Your task to perform on an android device: delete location history Image 0: 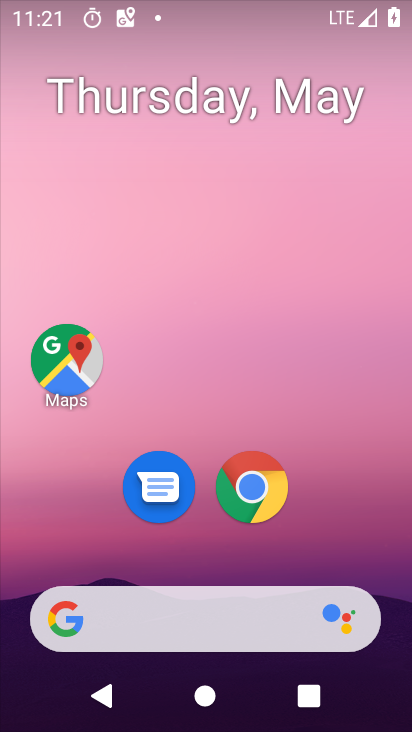
Step 0: drag from (243, 553) to (284, 24)
Your task to perform on an android device: delete location history Image 1: 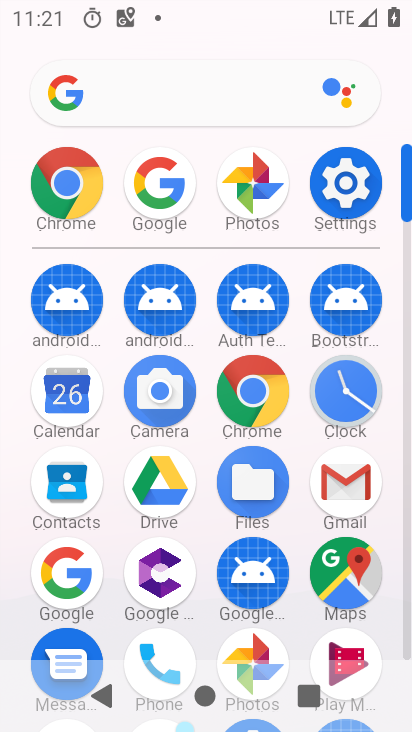
Step 1: click (351, 202)
Your task to perform on an android device: delete location history Image 2: 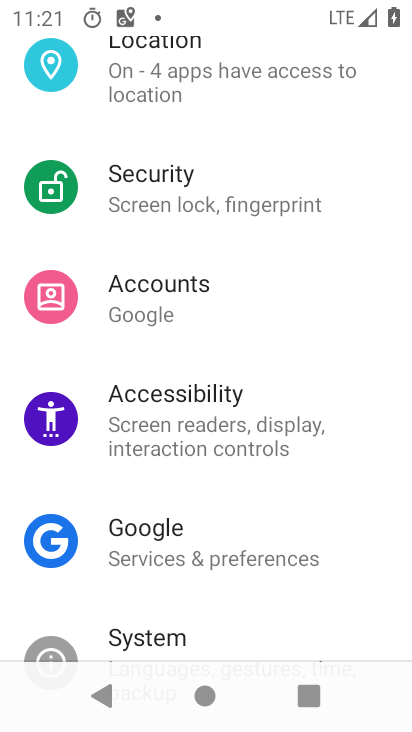
Step 2: drag from (173, 519) to (225, 160)
Your task to perform on an android device: delete location history Image 3: 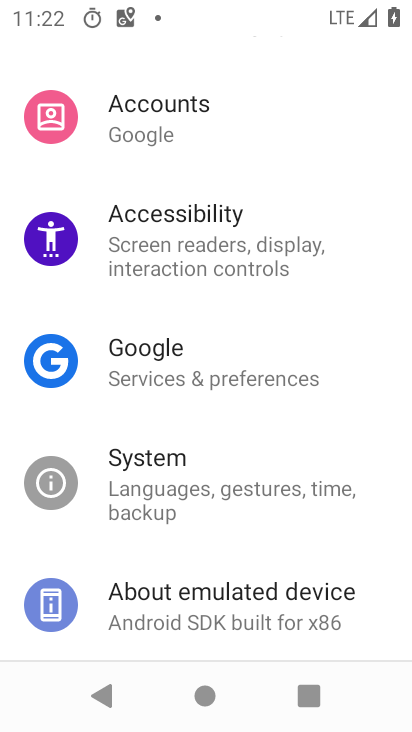
Step 3: drag from (251, 430) to (240, 636)
Your task to perform on an android device: delete location history Image 4: 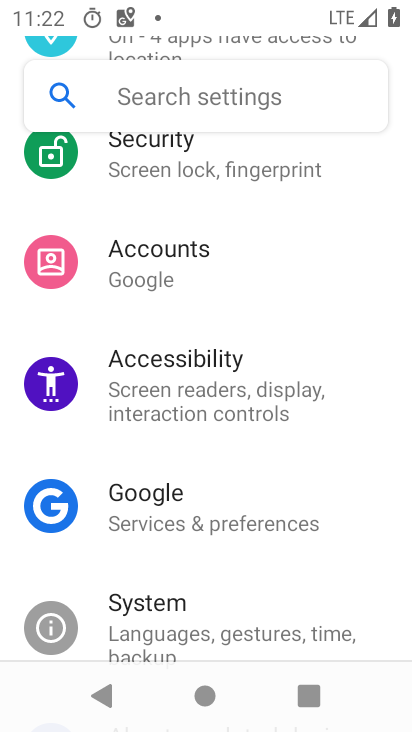
Step 4: drag from (239, 280) to (246, 505)
Your task to perform on an android device: delete location history Image 5: 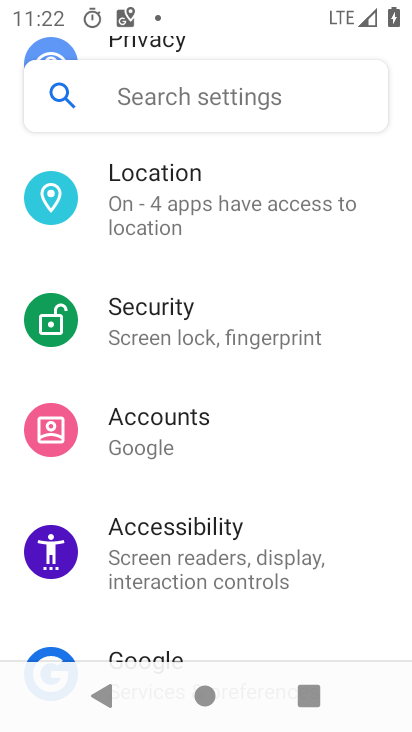
Step 5: click (225, 225)
Your task to perform on an android device: delete location history Image 6: 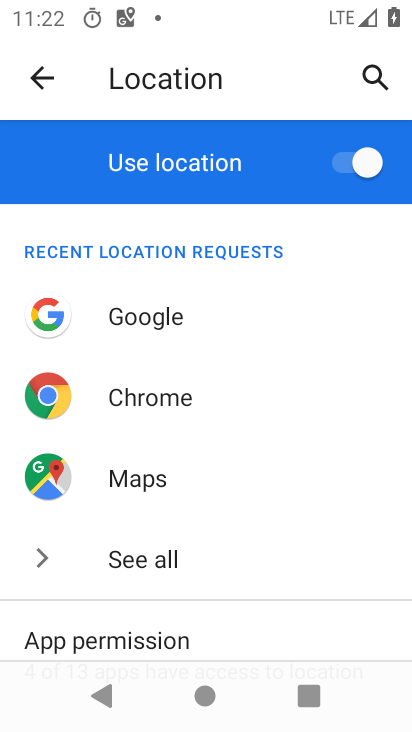
Step 6: drag from (198, 545) to (224, 210)
Your task to perform on an android device: delete location history Image 7: 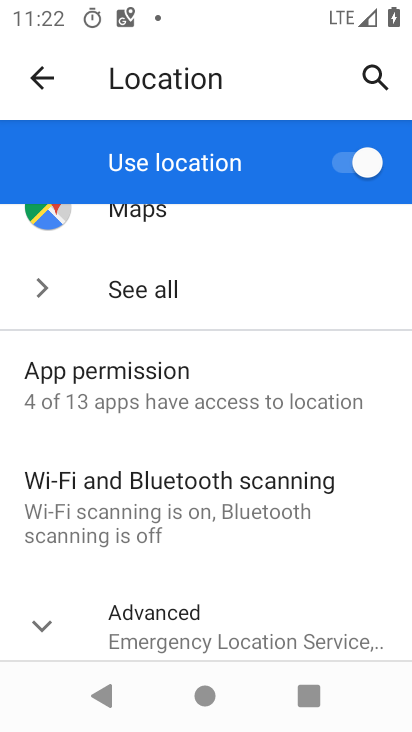
Step 7: click (192, 598)
Your task to perform on an android device: delete location history Image 8: 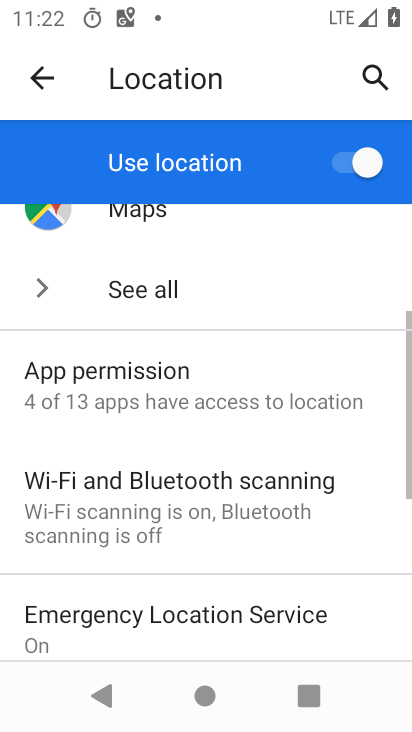
Step 8: drag from (204, 488) to (238, 209)
Your task to perform on an android device: delete location history Image 9: 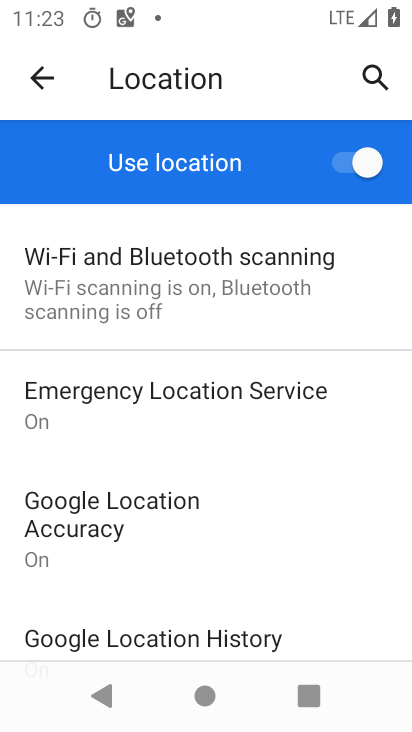
Step 9: drag from (233, 574) to (281, 218)
Your task to perform on an android device: delete location history Image 10: 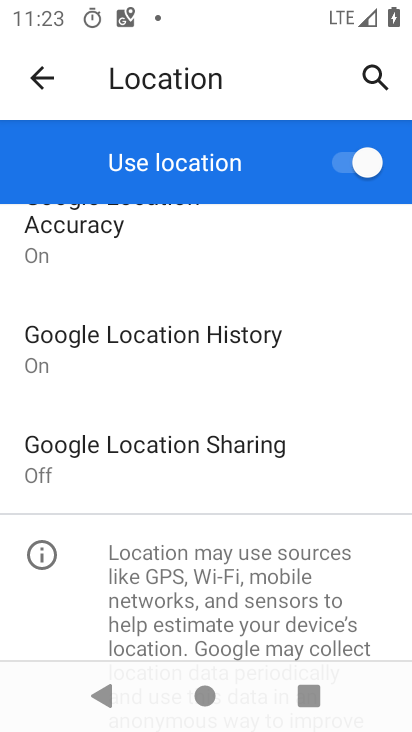
Step 10: click (245, 353)
Your task to perform on an android device: delete location history Image 11: 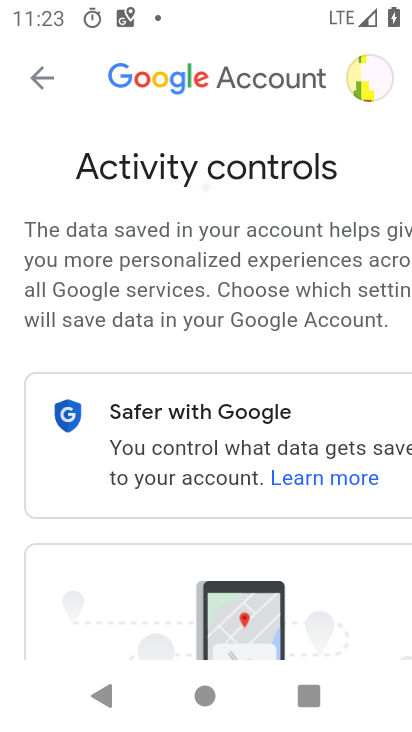
Step 11: drag from (252, 502) to (171, 161)
Your task to perform on an android device: delete location history Image 12: 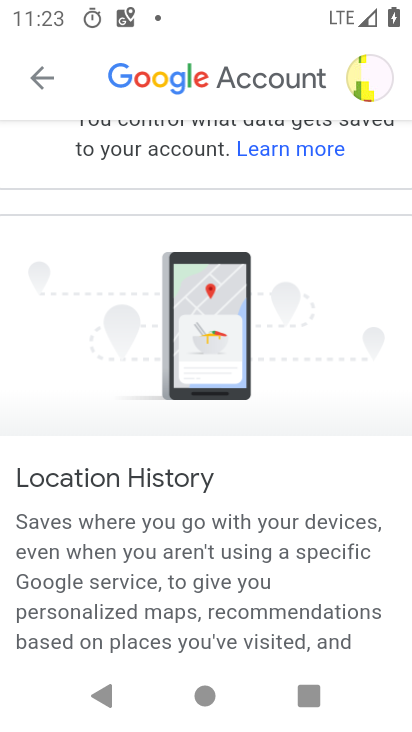
Step 12: drag from (278, 434) to (300, 74)
Your task to perform on an android device: delete location history Image 13: 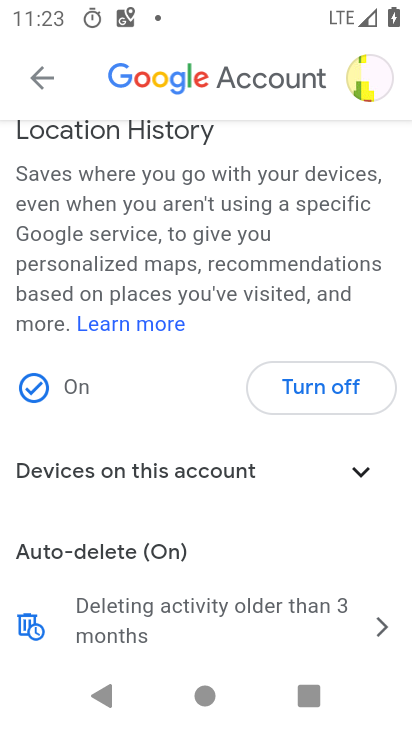
Step 13: click (276, 609)
Your task to perform on an android device: delete location history Image 14: 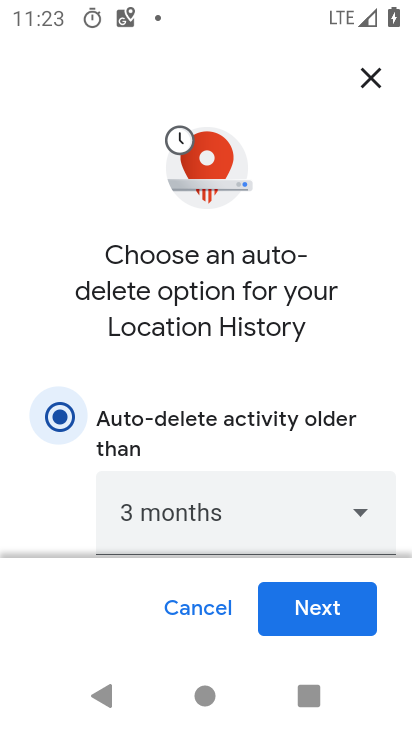
Step 14: click (328, 614)
Your task to perform on an android device: delete location history Image 15: 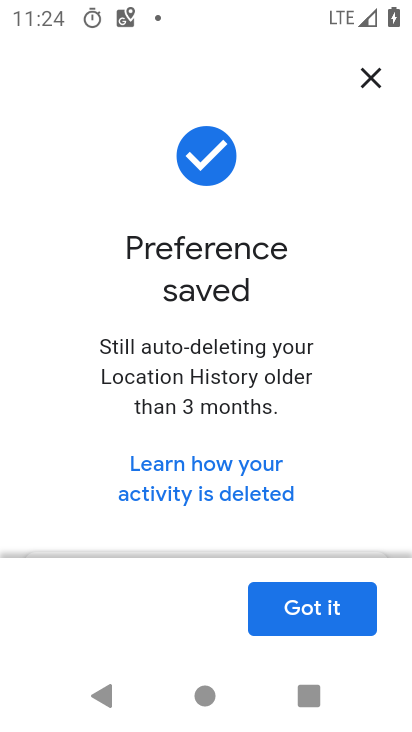
Step 15: click (343, 617)
Your task to perform on an android device: delete location history Image 16: 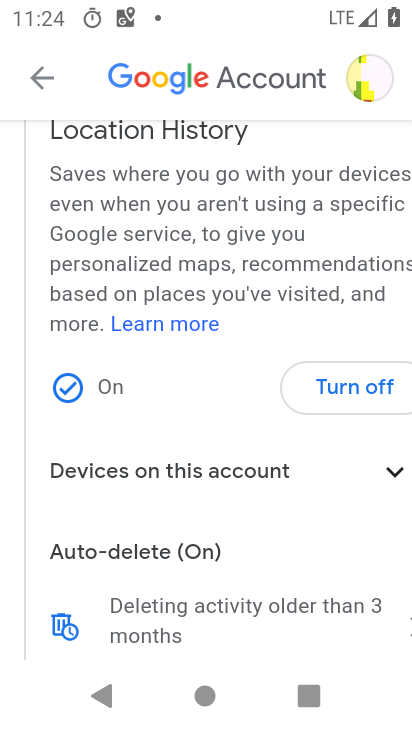
Step 16: task complete